Your task to perform on an android device: Open Google Maps and go to "Timeline" Image 0: 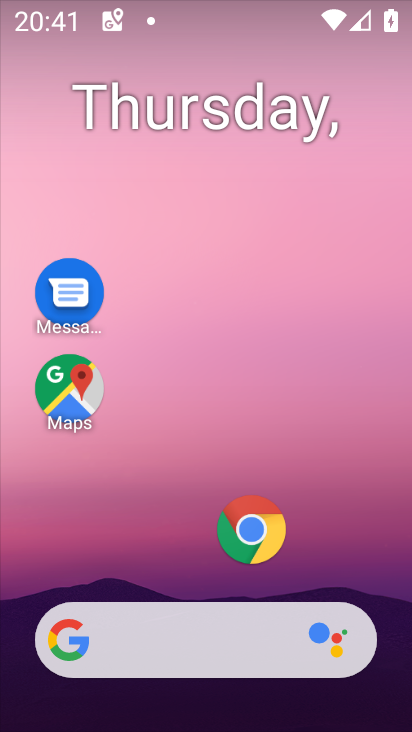
Step 0: click (79, 376)
Your task to perform on an android device: Open Google Maps and go to "Timeline" Image 1: 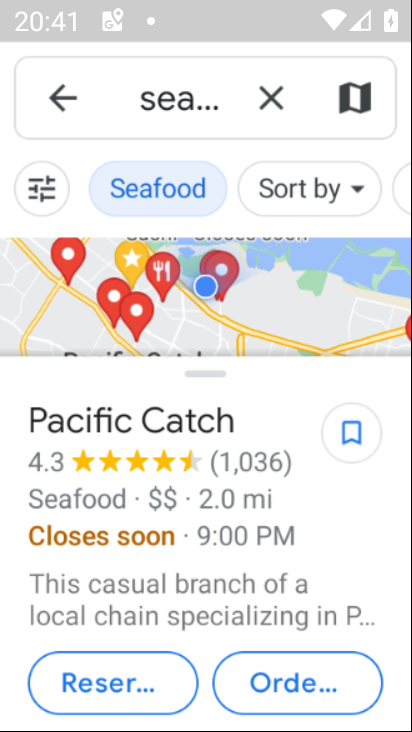
Step 1: click (70, 125)
Your task to perform on an android device: Open Google Maps and go to "Timeline" Image 2: 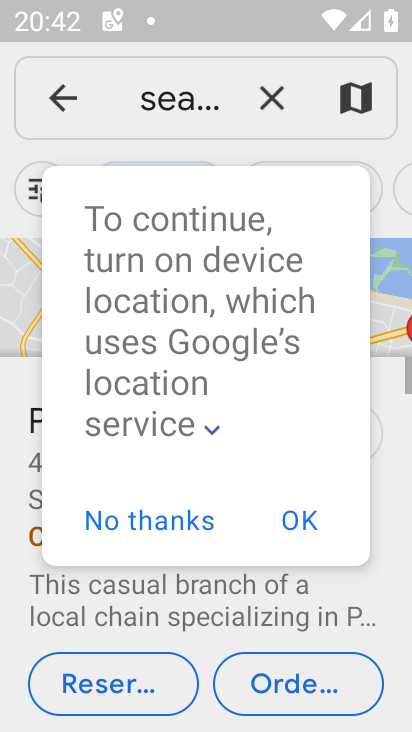
Step 2: click (63, 105)
Your task to perform on an android device: Open Google Maps and go to "Timeline" Image 3: 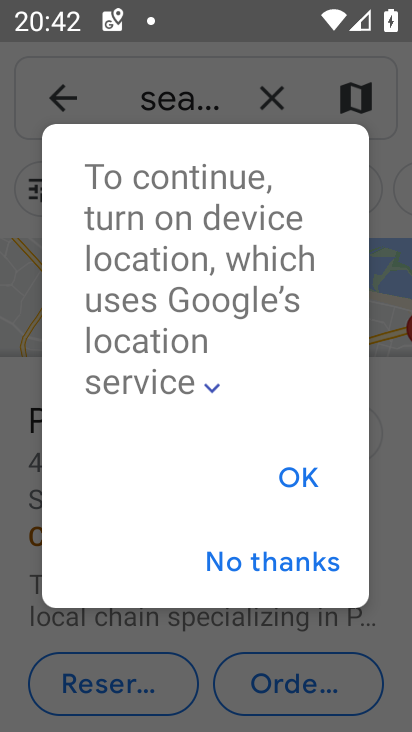
Step 3: click (324, 484)
Your task to perform on an android device: Open Google Maps and go to "Timeline" Image 4: 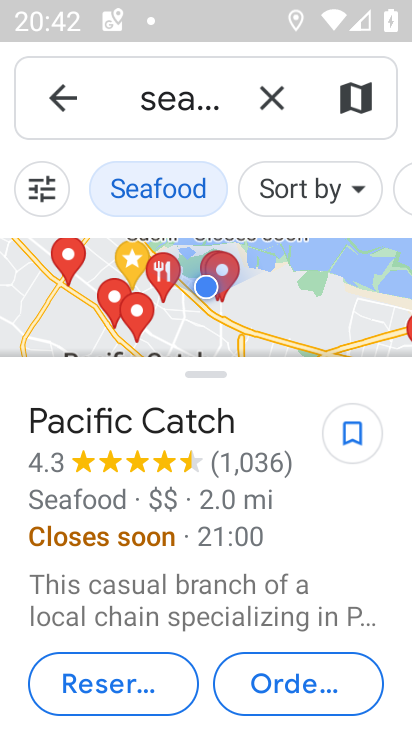
Step 4: click (54, 78)
Your task to perform on an android device: Open Google Maps and go to "Timeline" Image 5: 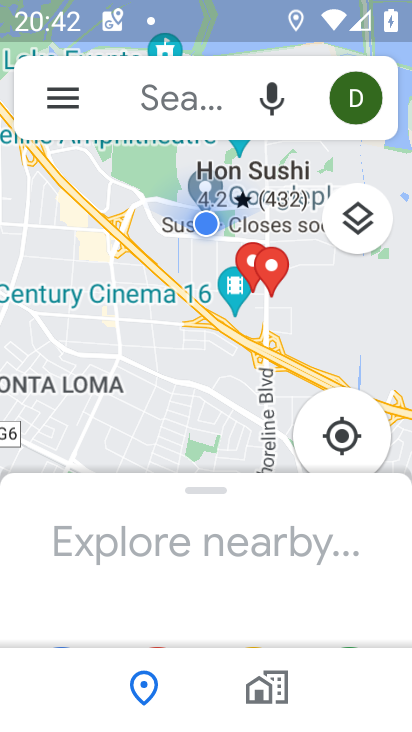
Step 5: click (54, 78)
Your task to perform on an android device: Open Google Maps and go to "Timeline" Image 6: 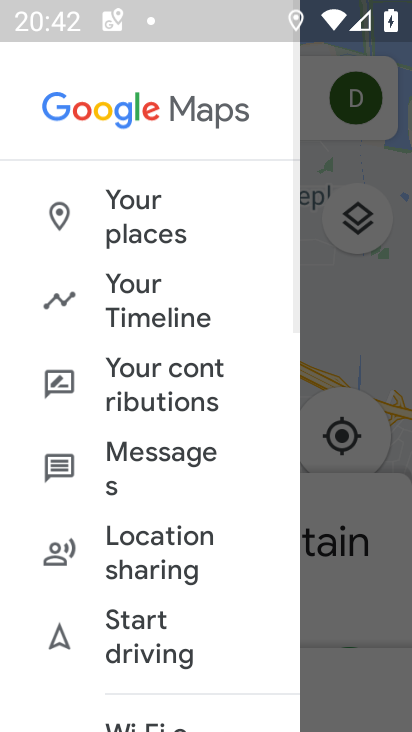
Step 6: click (174, 308)
Your task to perform on an android device: Open Google Maps and go to "Timeline" Image 7: 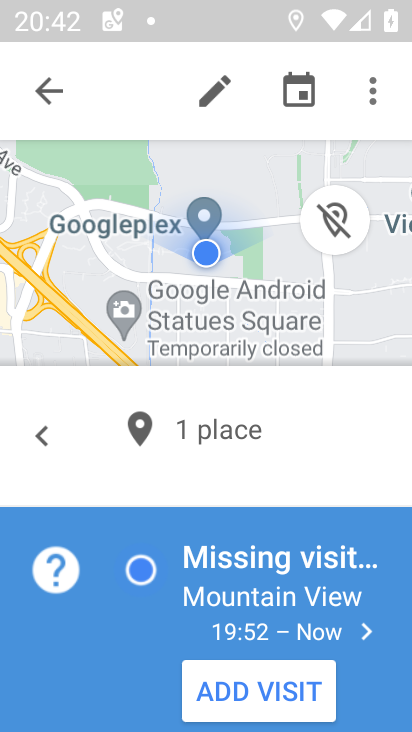
Step 7: task complete